Your task to perform on an android device: Open battery settings Image 0: 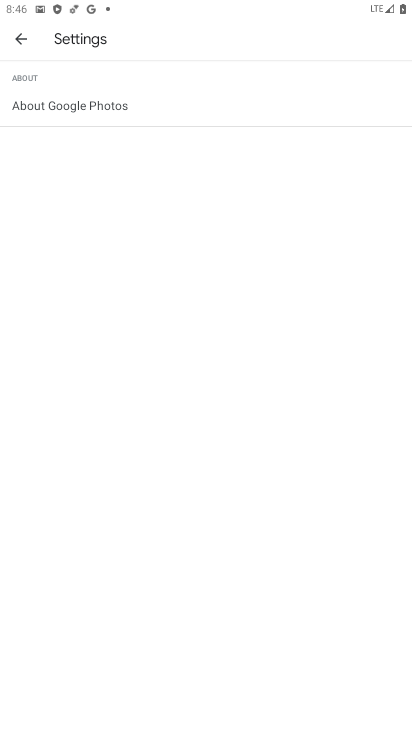
Step 0: press home button
Your task to perform on an android device: Open battery settings Image 1: 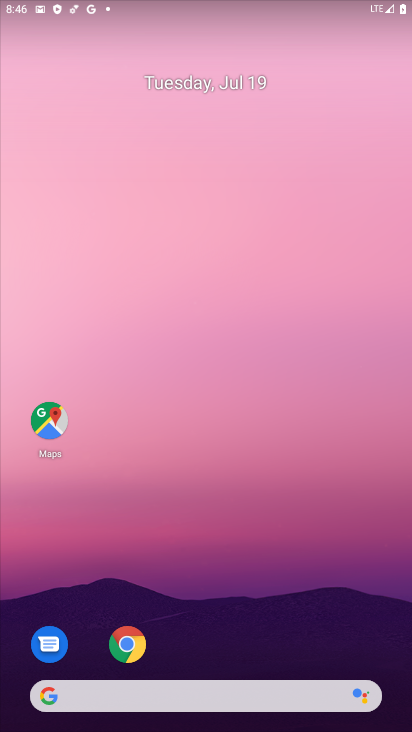
Step 1: drag from (267, 650) to (271, 316)
Your task to perform on an android device: Open battery settings Image 2: 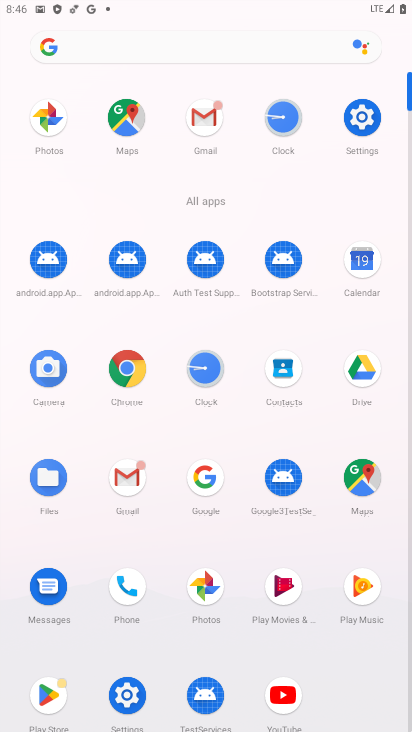
Step 2: click (372, 125)
Your task to perform on an android device: Open battery settings Image 3: 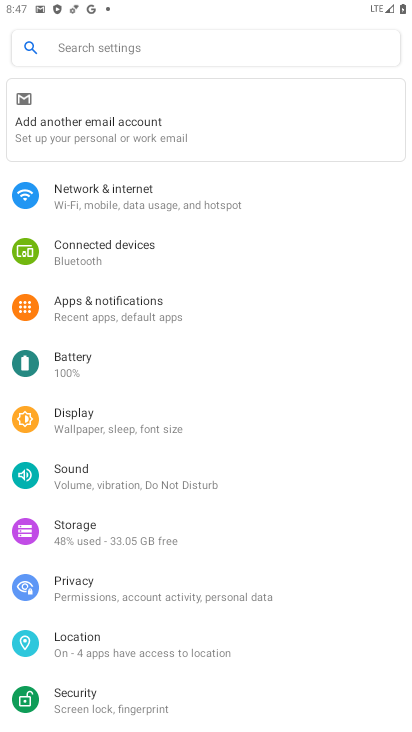
Step 3: click (144, 383)
Your task to perform on an android device: Open battery settings Image 4: 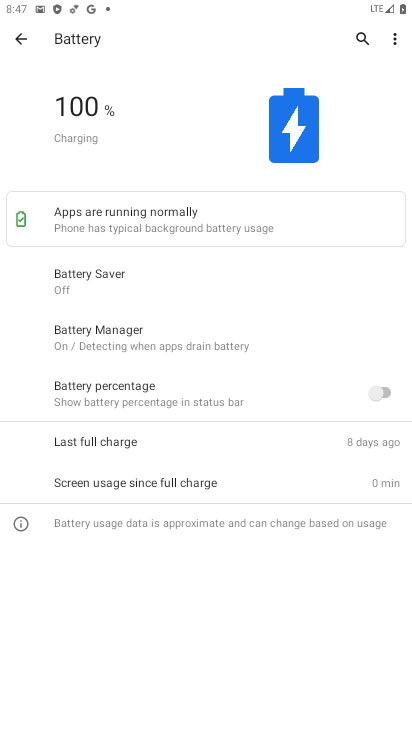
Step 4: task complete